Your task to perform on an android device: open app "Yahoo Mail" (install if not already installed) Image 0: 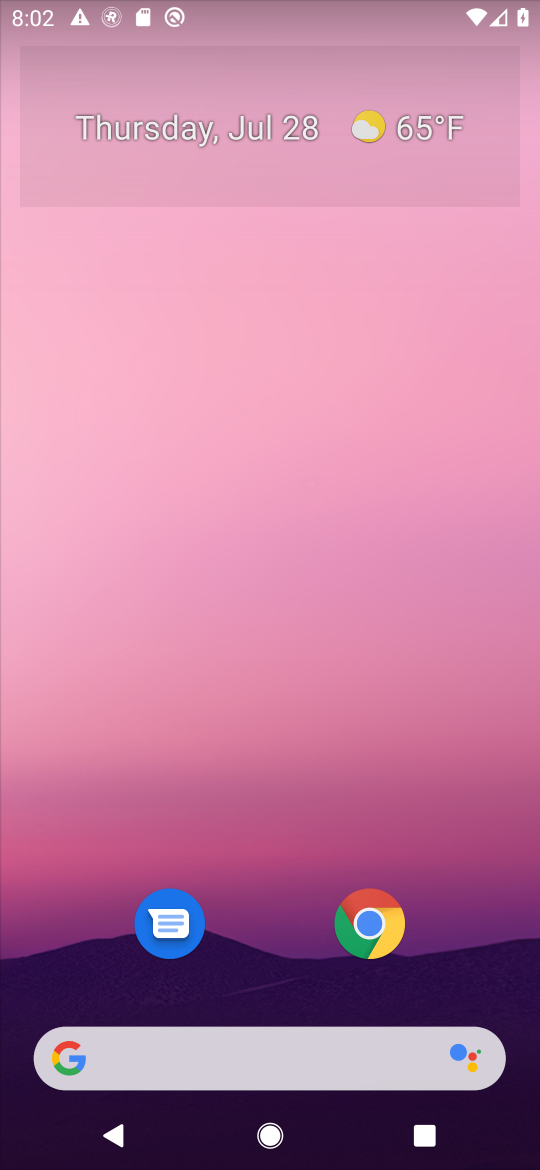
Step 0: drag from (463, 863) to (353, 144)
Your task to perform on an android device: open app "Yahoo Mail" (install if not already installed) Image 1: 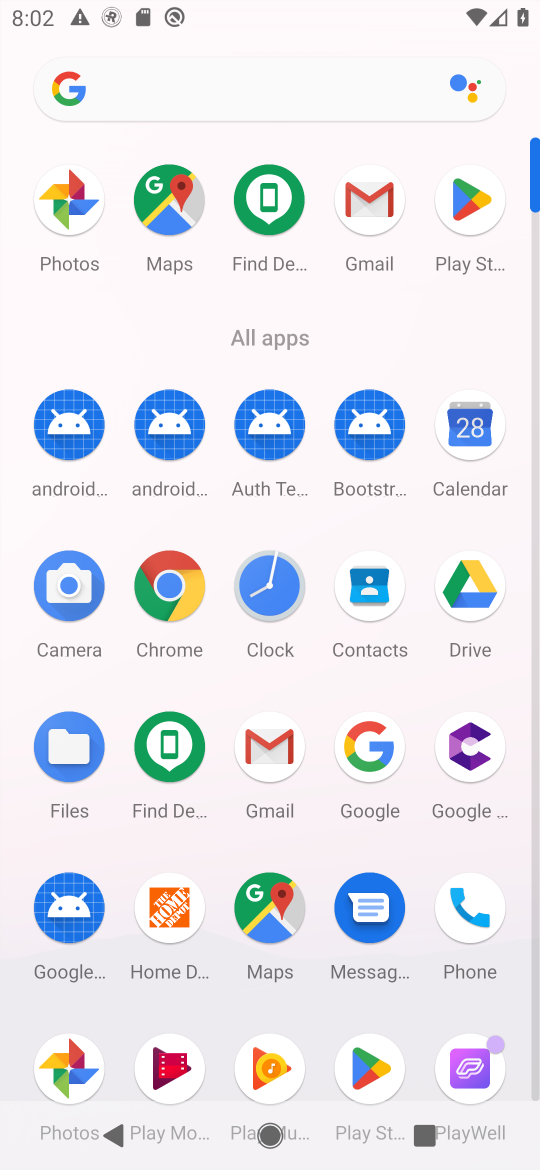
Step 1: click (471, 191)
Your task to perform on an android device: open app "Yahoo Mail" (install if not already installed) Image 2: 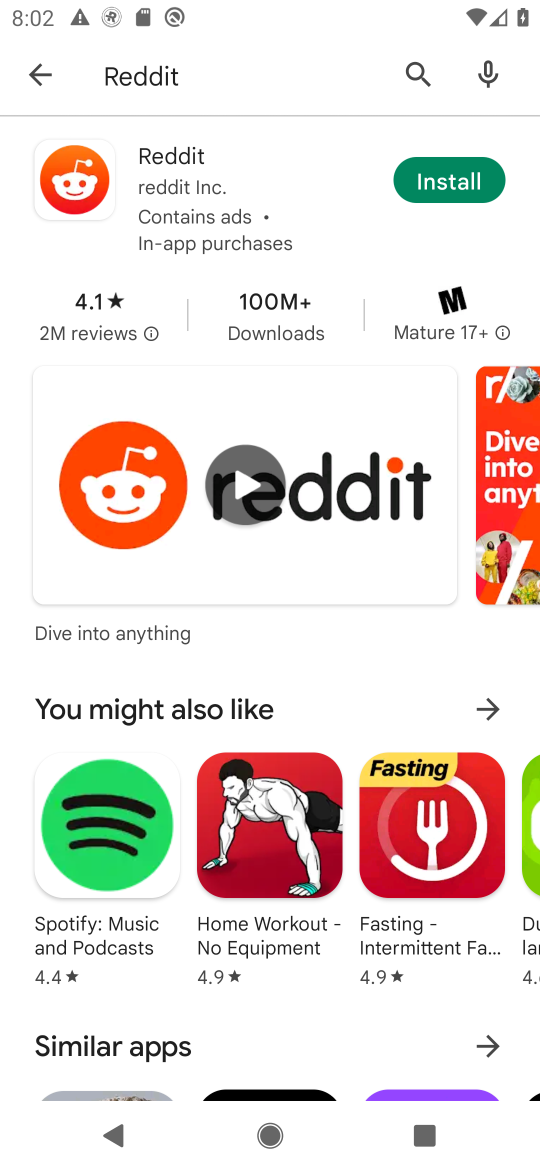
Step 2: click (250, 92)
Your task to perform on an android device: open app "Yahoo Mail" (install if not already installed) Image 3: 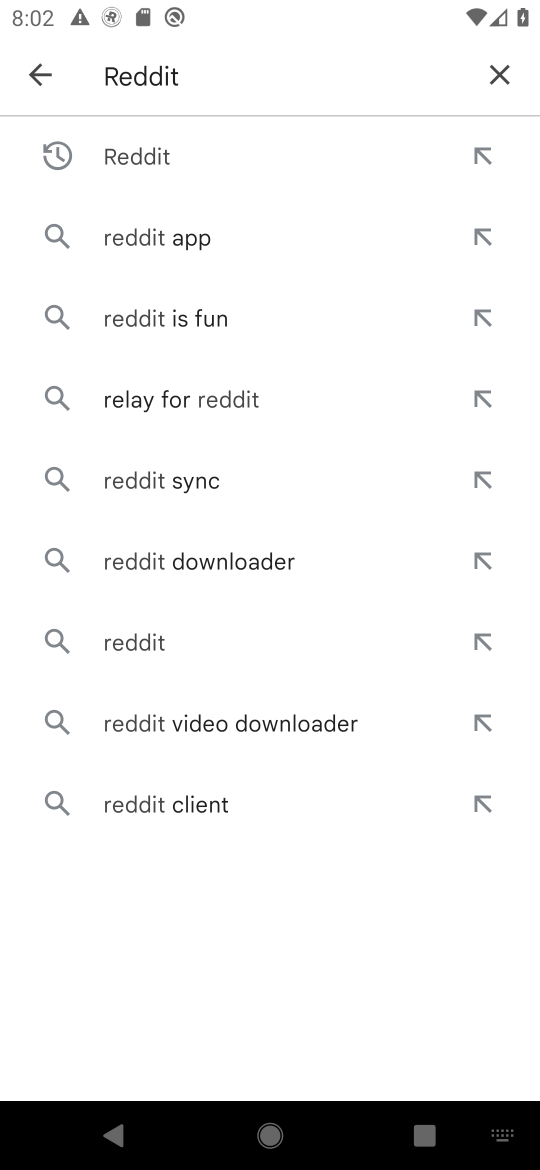
Step 3: click (502, 84)
Your task to perform on an android device: open app "Yahoo Mail" (install if not already installed) Image 4: 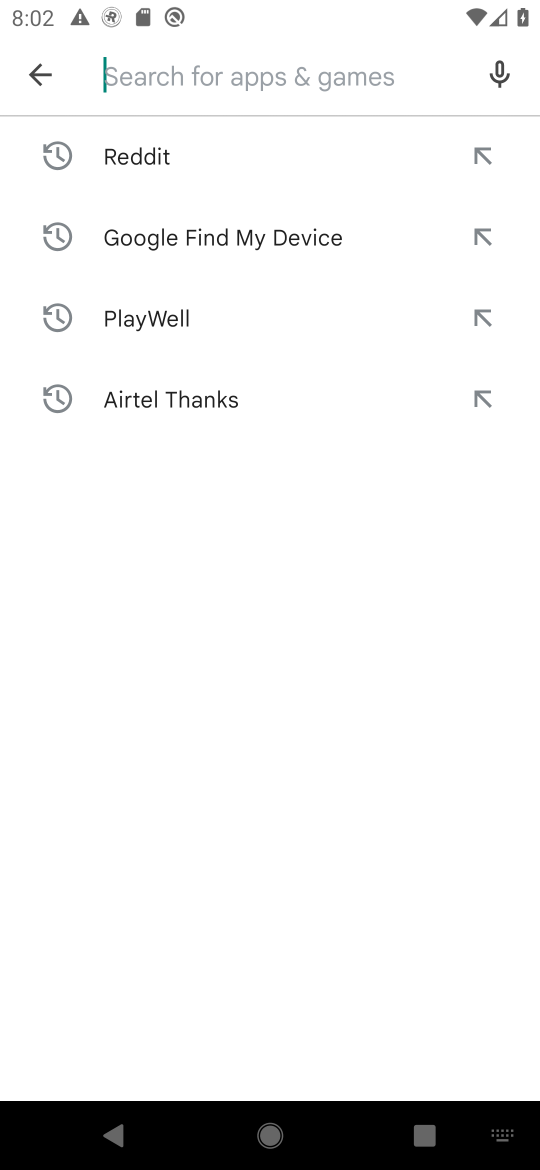
Step 4: type "Yahoo Mail "
Your task to perform on an android device: open app "Yahoo Mail" (install if not already installed) Image 5: 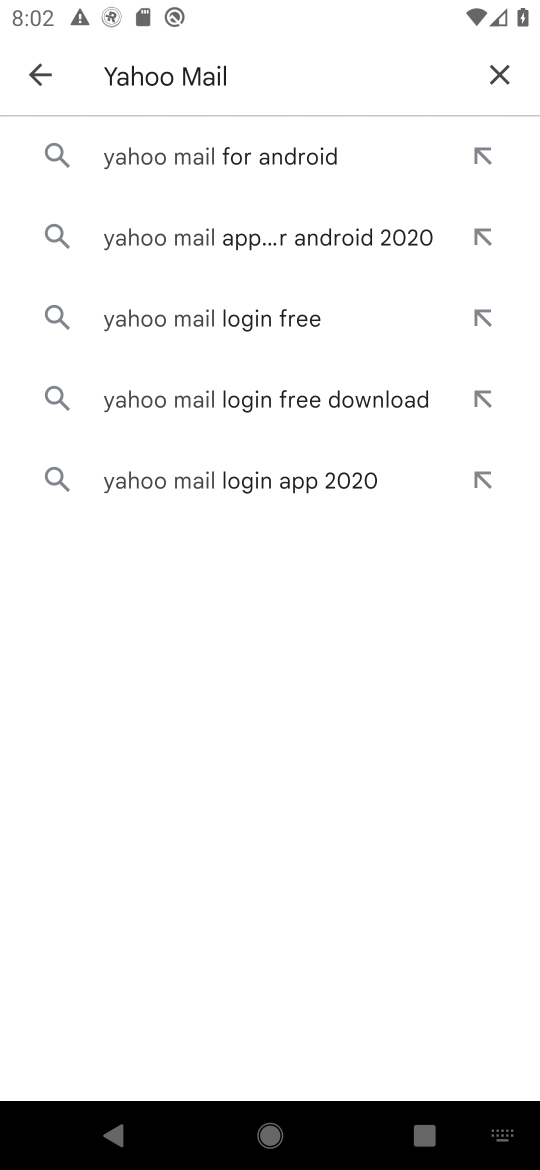
Step 5: press enter
Your task to perform on an android device: open app "Yahoo Mail" (install if not already installed) Image 6: 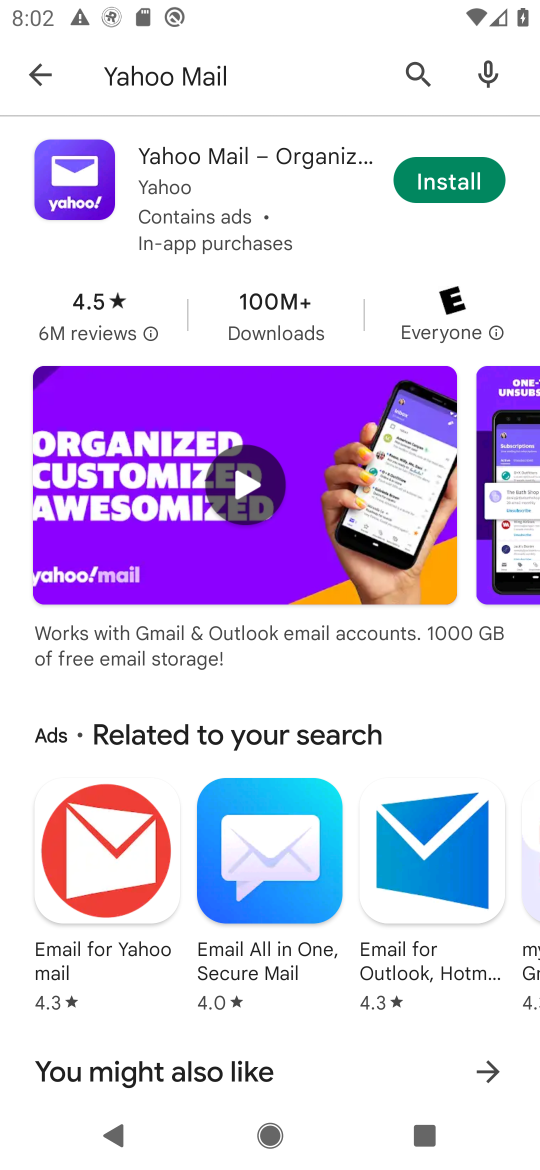
Step 6: click (446, 182)
Your task to perform on an android device: open app "Yahoo Mail" (install if not already installed) Image 7: 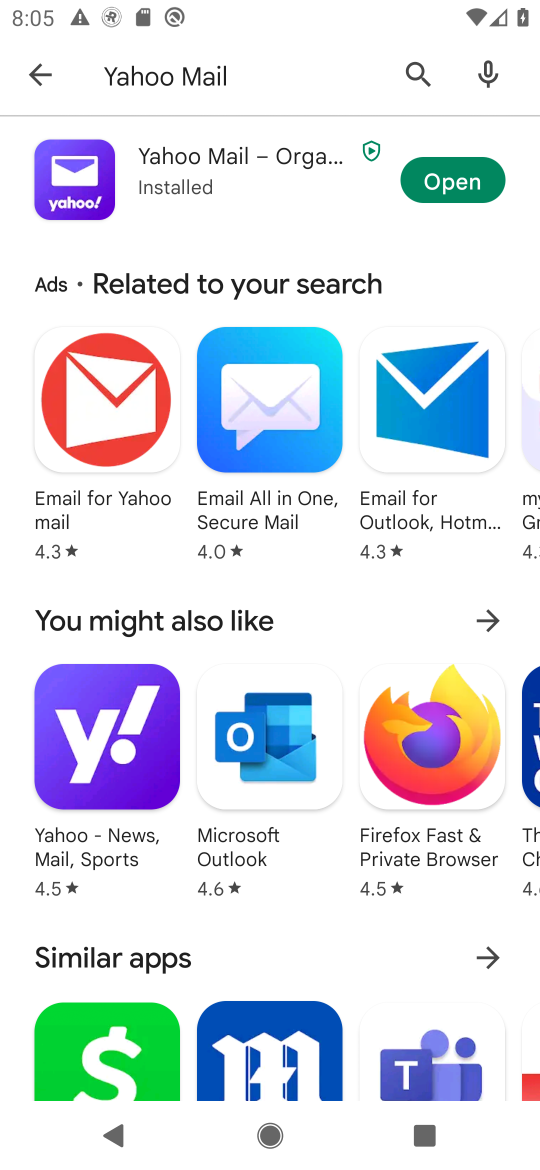
Step 7: click (451, 184)
Your task to perform on an android device: open app "Yahoo Mail" (install if not already installed) Image 8: 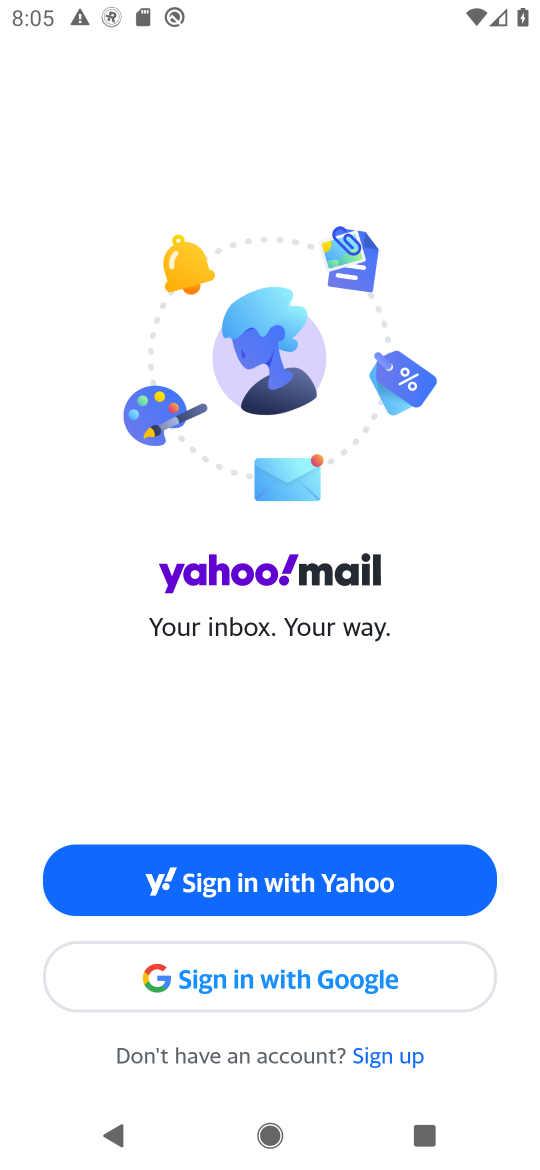
Step 8: task complete